Your task to perform on an android device: turn off smart reply in the gmail app Image 0: 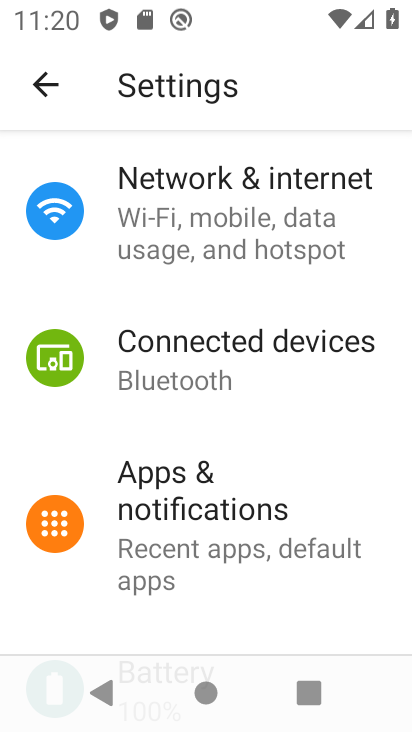
Step 0: press home button
Your task to perform on an android device: turn off smart reply in the gmail app Image 1: 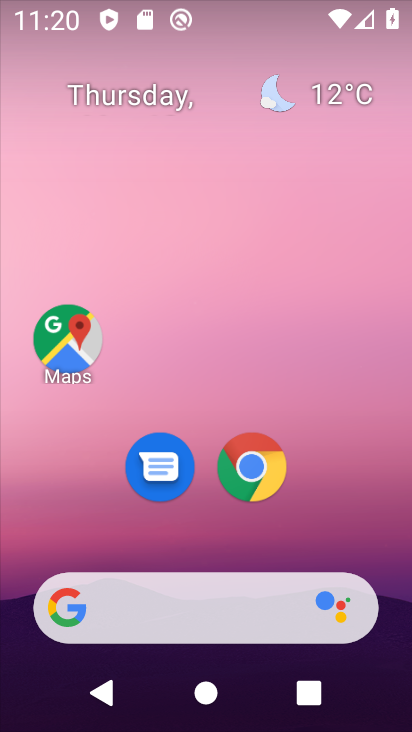
Step 1: drag from (324, 440) to (281, 74)
Your task to perform on an android device: turn off smart reply in the gmail app Image 2: 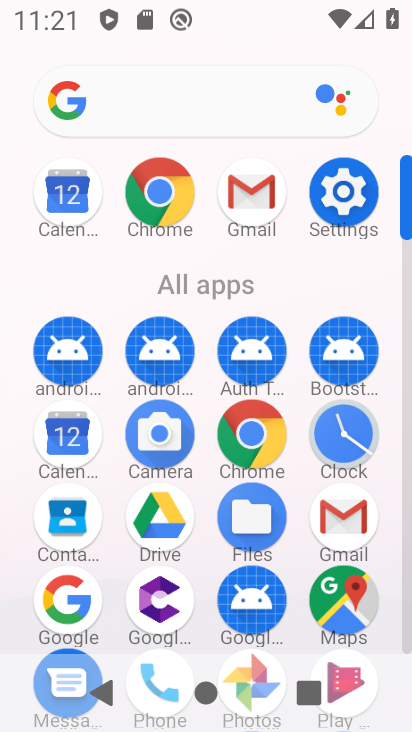
Step 2: click (268, 181)
Your task to perform on an android device: turn off smart reply in the gmail app Image 3: 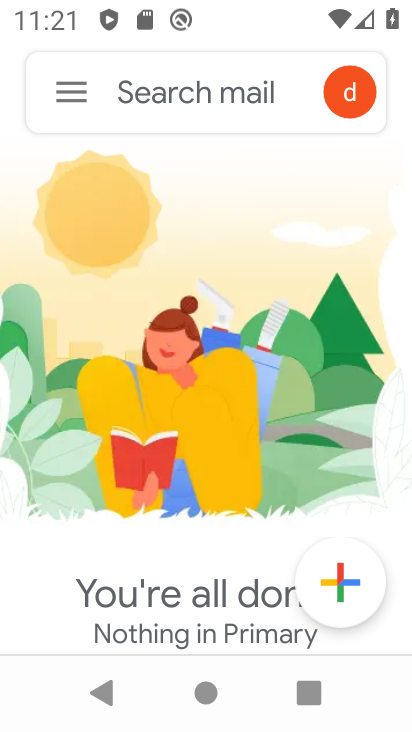
Step 3: click (68, 99)
Your task to perform on an android device: turn off smart reply in the gmail app Image 4: 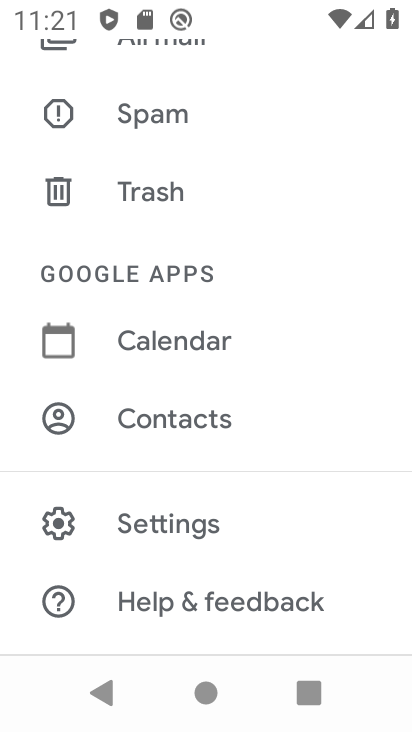
Step 4: click (194, 507)
Your task to perform on an android device: turn off smart reply in the gmail app Image 5: 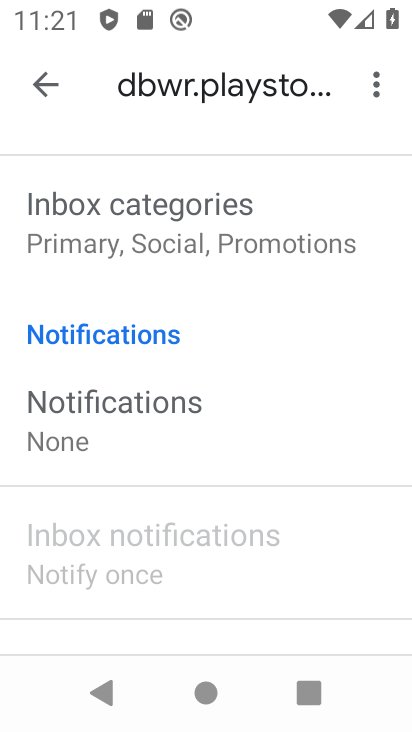
Step 5: drag from (168, 583) to (247, 207)
Your task to perform on an android device: turn off smart reply in the gmail app Image 6: 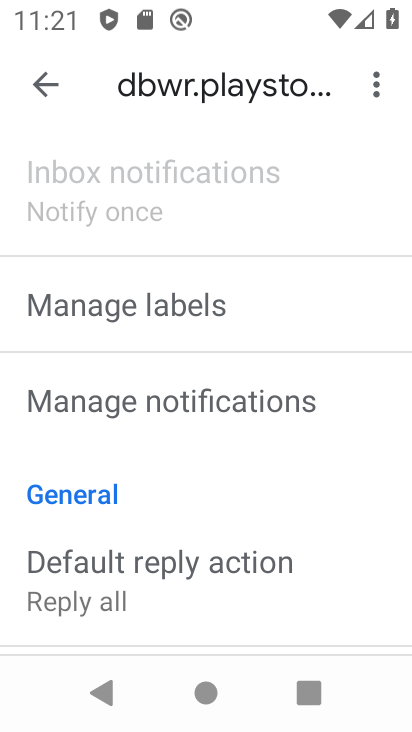
Step 6: drag from (180, 575) to (279, 2)
Your task to perform on an android device: turn off smart reply in the gmail app Image 7: 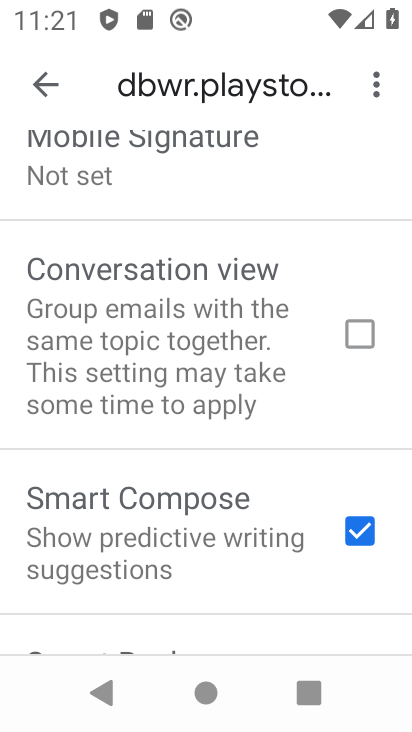
Step 7: drag from (132, 542) to (193, 223)
Your task to perform on an android device: turn off smart reply in the gmail app Image 8: 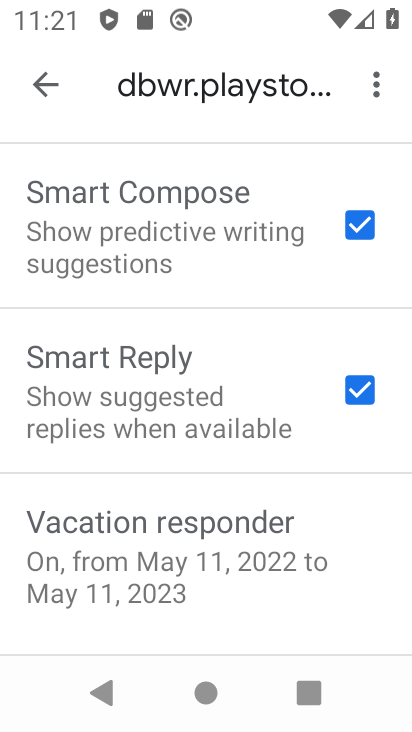
Step 8: click (365, 393)
Your task to perform on an android device: turn off smart reply in the gmail app Image 9: 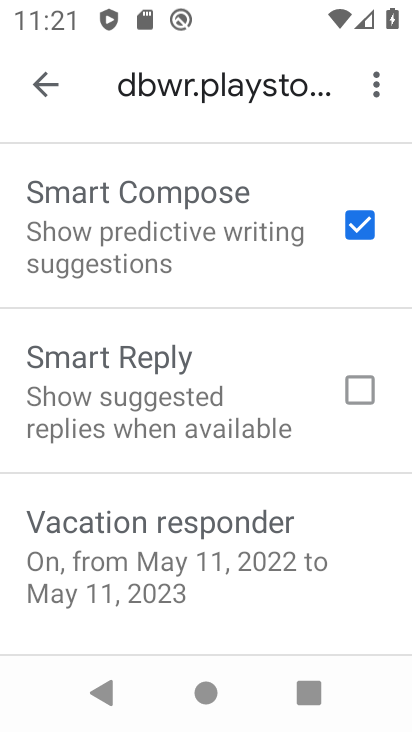
Step 9: task complete